Your task to perform on an android device: turn notification dots on Image 0: 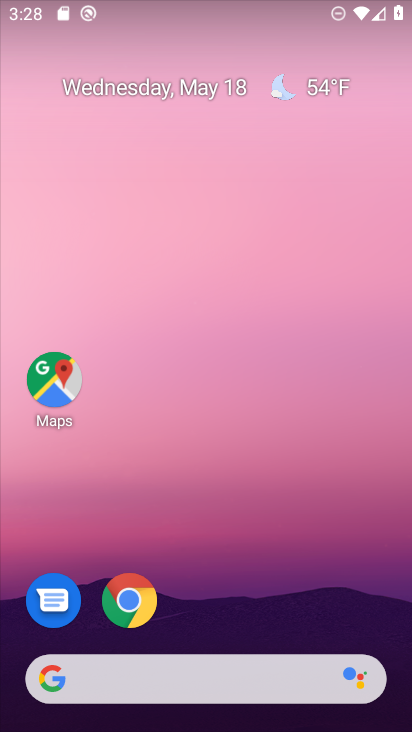
Step 0: drag from (217, 624) to (225, 92)
Your task to perform on an android device: turn notification dots on Image 1: 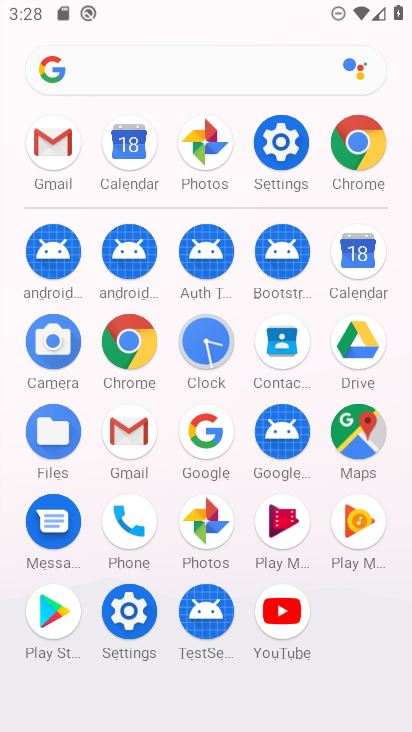
Step 1: click (142, 622)
Your task to perform on an android device: turn notification dots on Image 2: 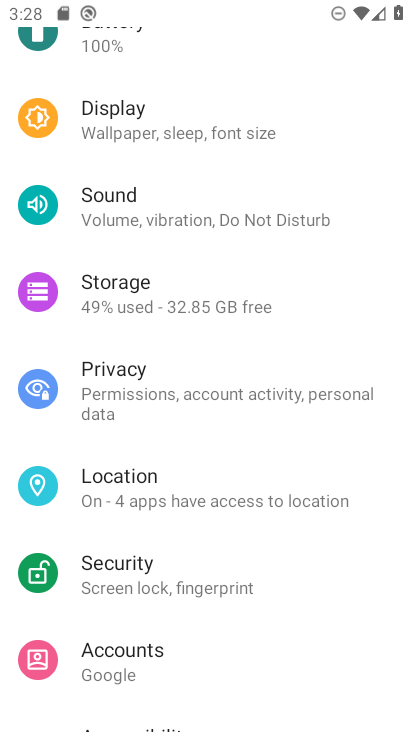
Step 2: drag from (176, 204) to (181, 487)
Your task to perform on an android device: turn notification dots on Image 3: 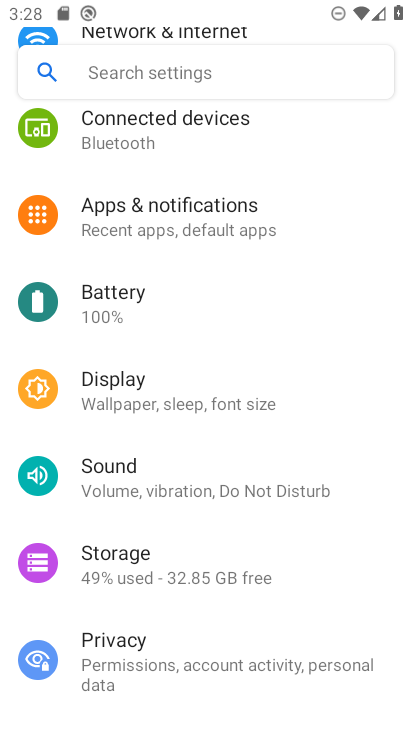
Step 3: click (174, 209)
Your task to perform on an android device: turn notification dots on Image 4: 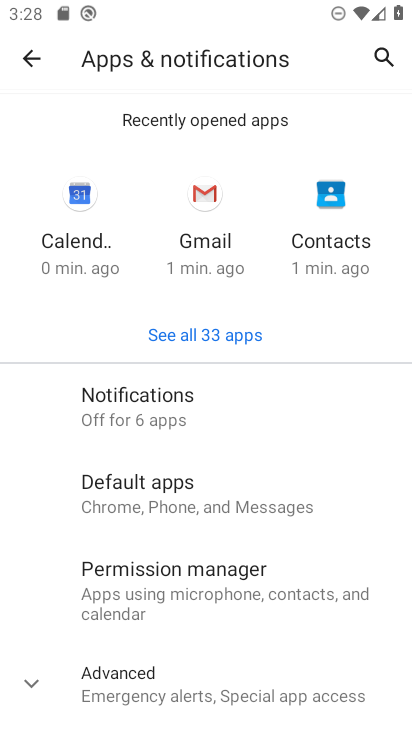
Step 4: click (175, 405)
Your task to perform on an android device: turn notification dots on Image 5: 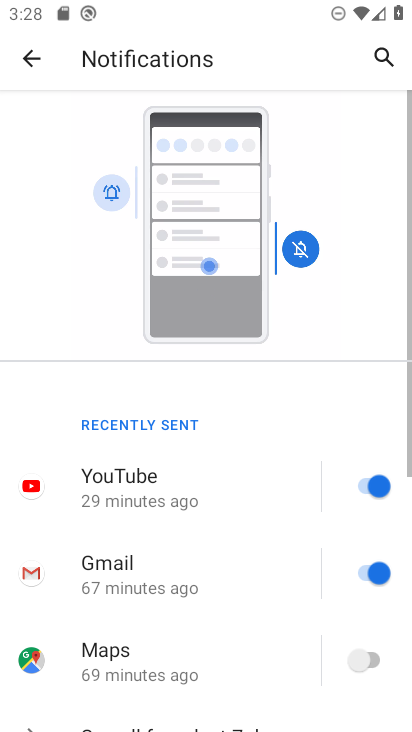
Step 5: drag from (202, 608) to (266, 230)
Your task to perform on an android device: turn notification dots on Image 6: 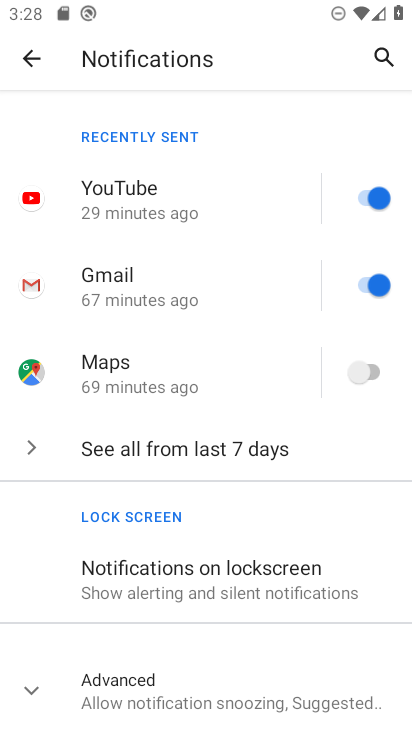
Step 6: click (219, 590)
Your task to perform on an android device: turn notification dots on Image 7: 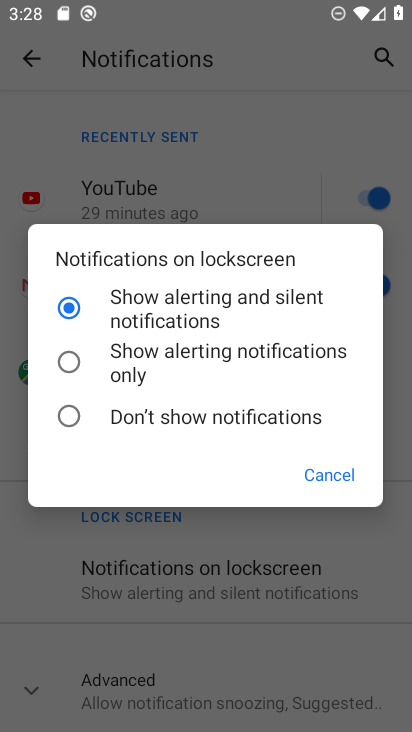
Step 7: click (296, 465)
Your task to perform on an android device: turn notification dots on Image 8: 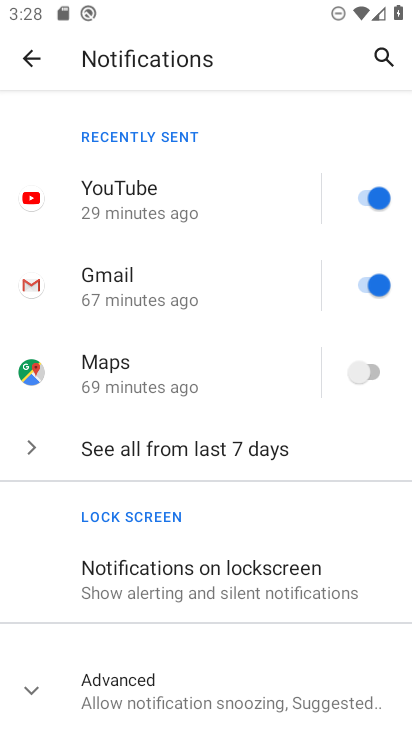
Step 8: click (151, 688)
Your task to perform on an android device: turn notification dots on Image 9: 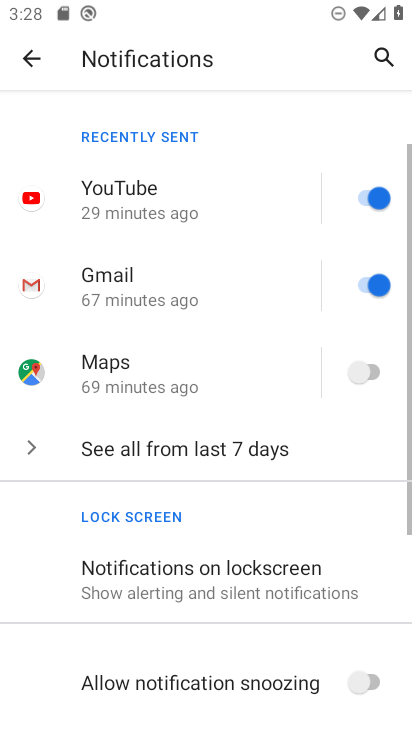
Step 9: drag from (154, 664) to (203, 394)
Your task to perform on an android device: turn notification dots on Image 10: 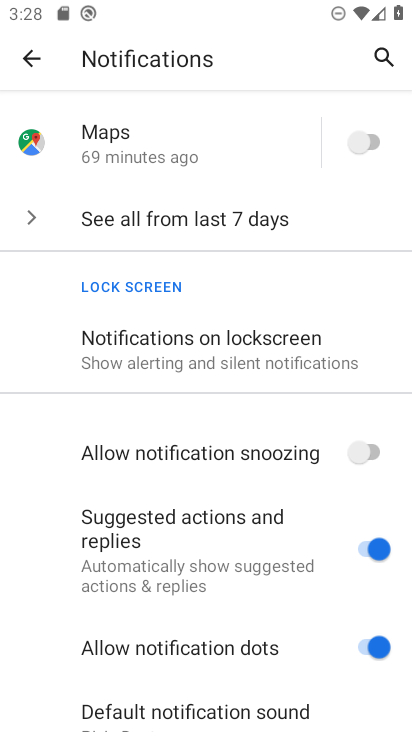
Step 10: drag from (208, 576) to (238, 396)
Your task to perform on an android device: turn notification dots on Image 11: 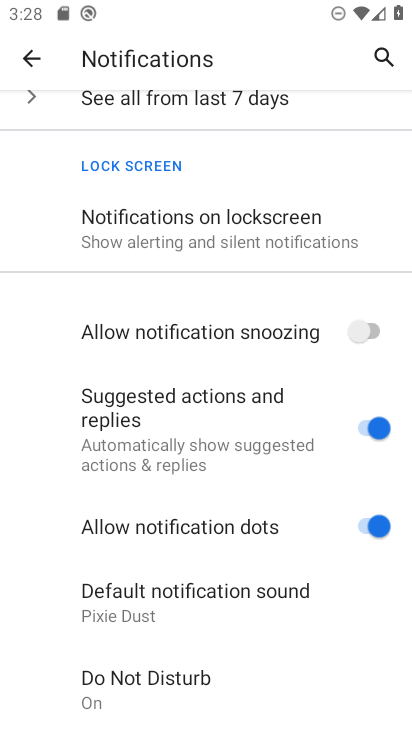
Step 11: click (334, 525)
Your task to perform on an android device: turn notification dots on Image 12: 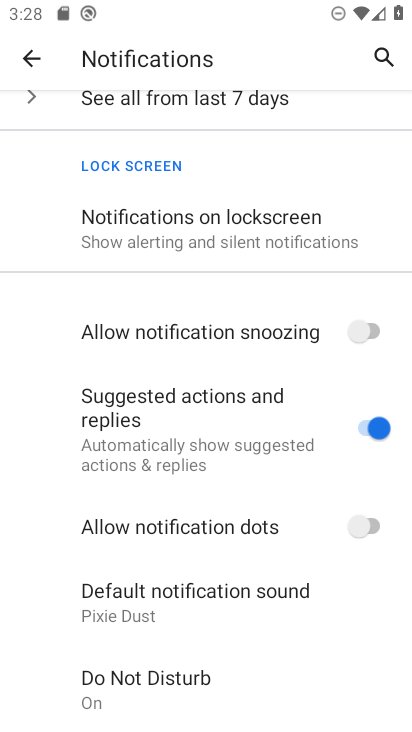
Step 12: task complete